Your task to perform on an android device: turn off data saver in the chrome app Image 0: 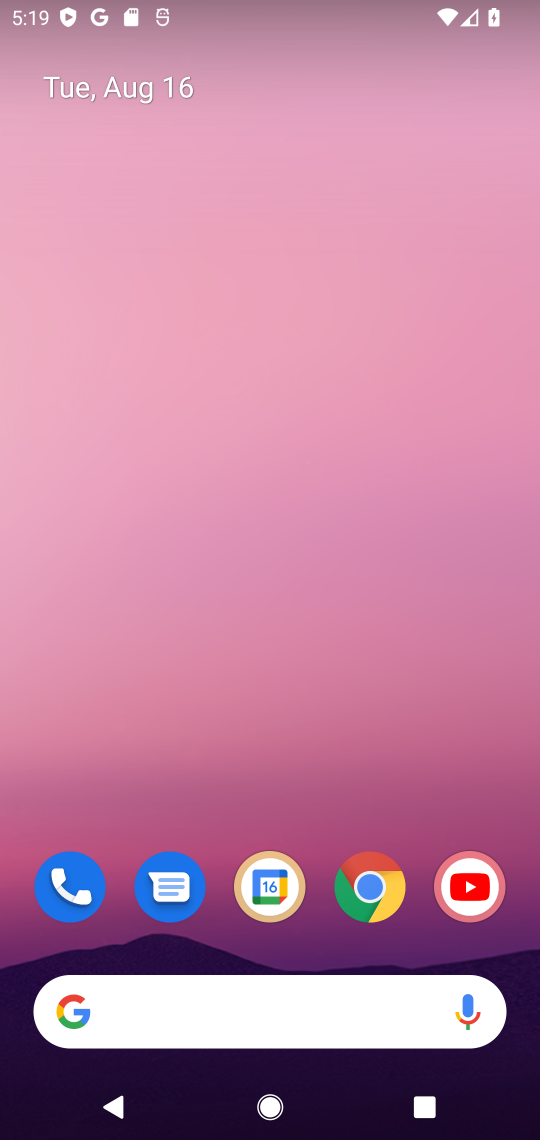
Step 0: drag from (341, 456) to (401, 13)
Your task to perform on an android device: turn off data saver in the chrome app Image 1: 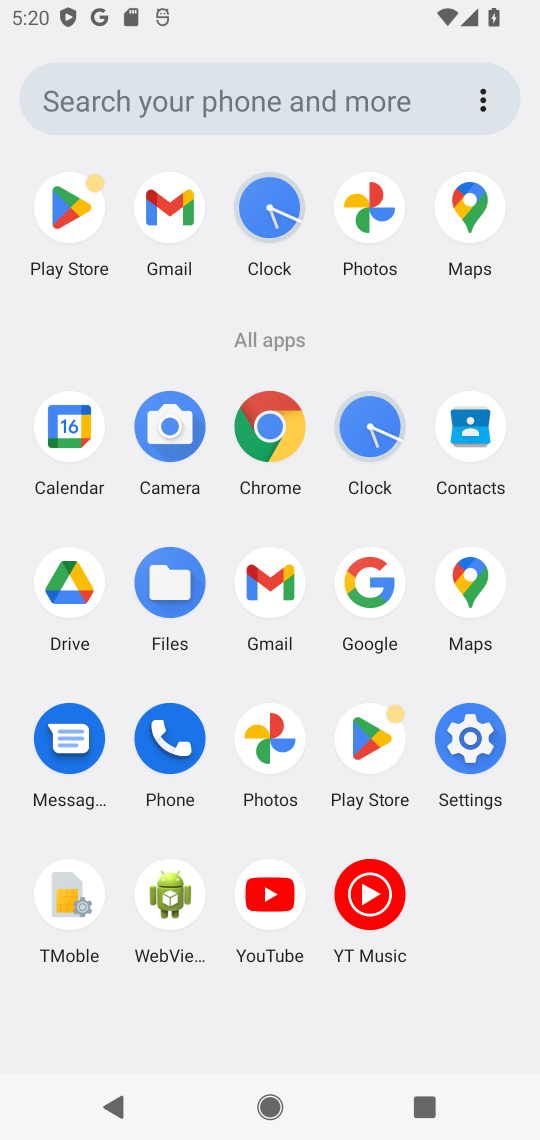
Step 1: click (273, 423)
Your task to perform on an android device: turn off data saver in the chrome app Image 2: 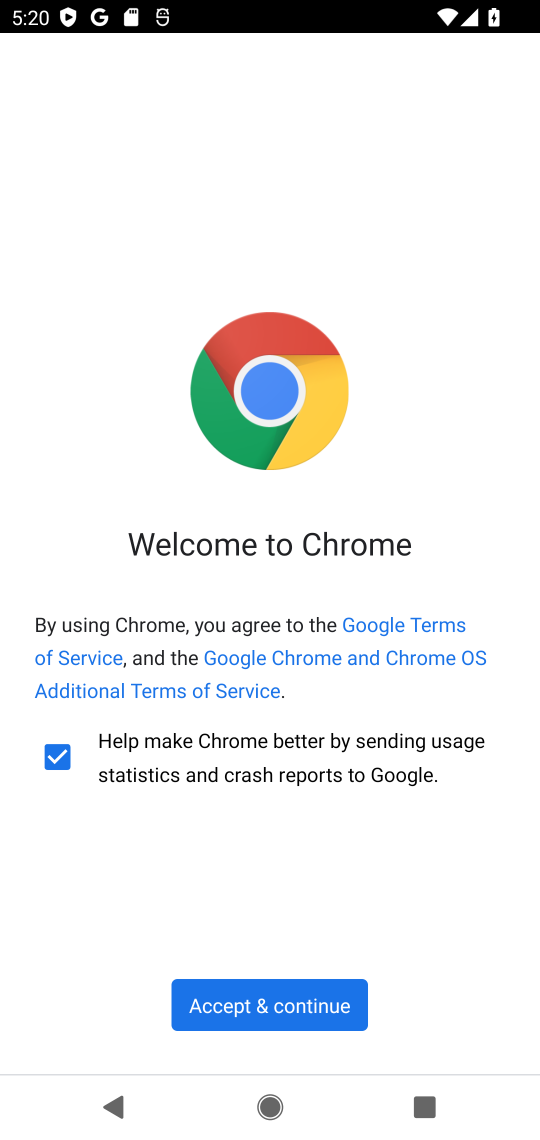
Step 2: click (280, 1002)
Your task to perform on an android device: turn off data saver in the chrome app Image 3: 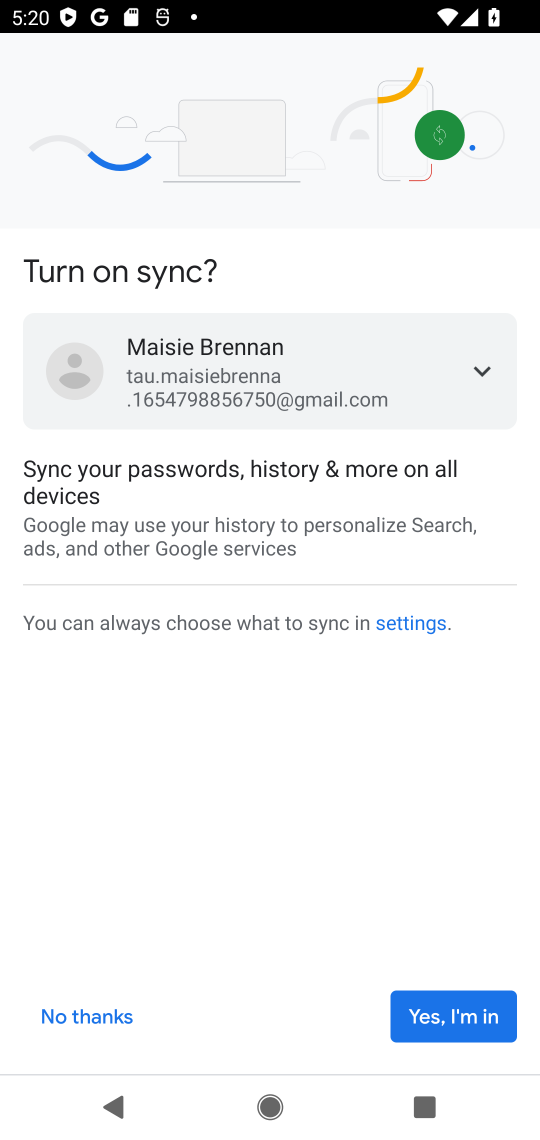
Step 3: click (466, 1017)
Your task to perform on an android device: turn off data saver in the chrome app Image 4: 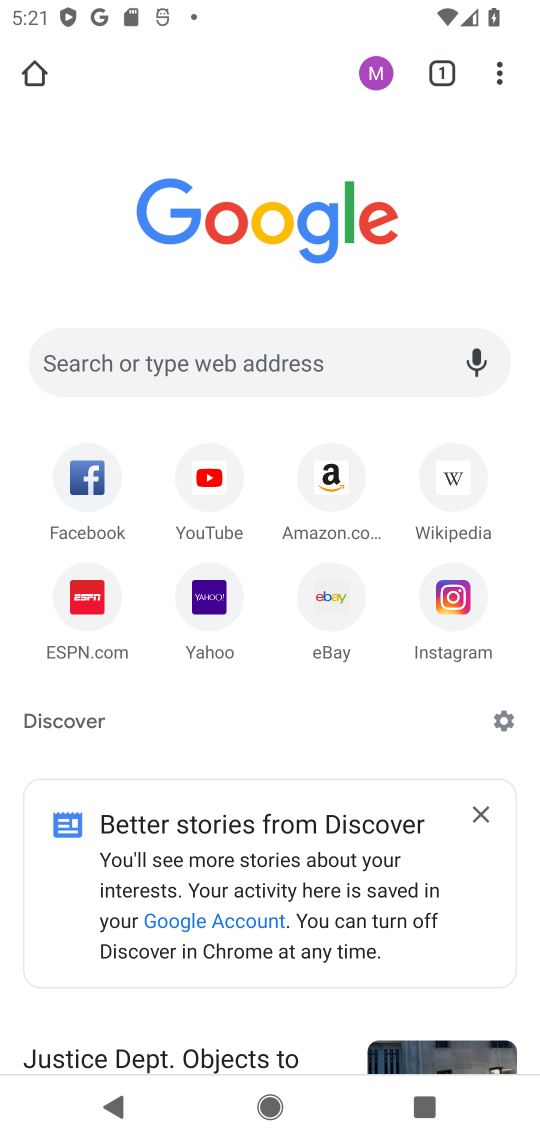
Step 4: drag from (503, 57) to (272, 683)
Your task to perform on an android device: turn off data saver in the chrome app Image 5: 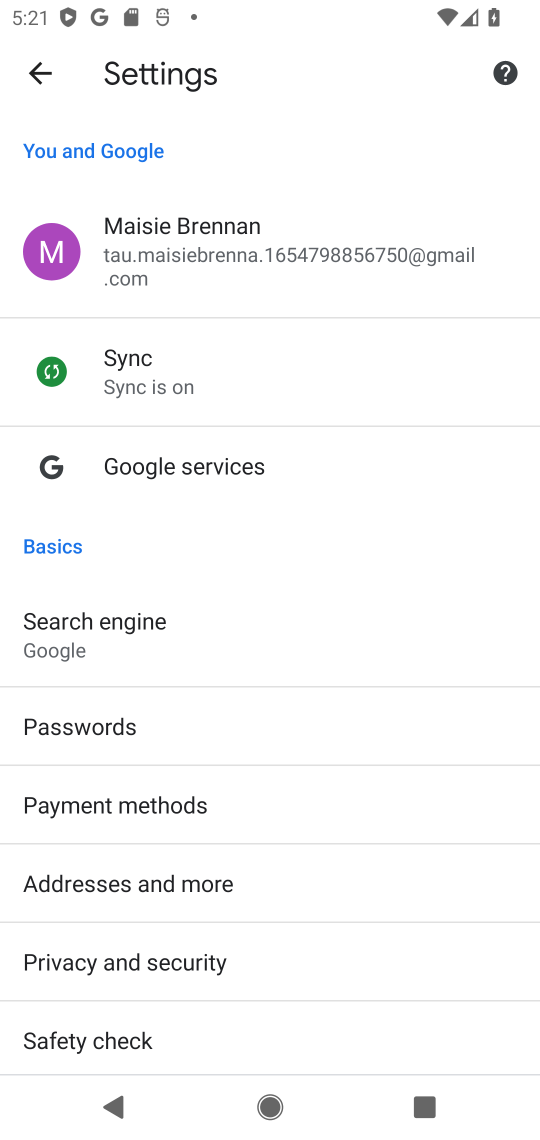
Step 5: drag from (320, 959) to (399, 102)
Your task to perform on an android device: turn off data saver in the chrome app Image 6: 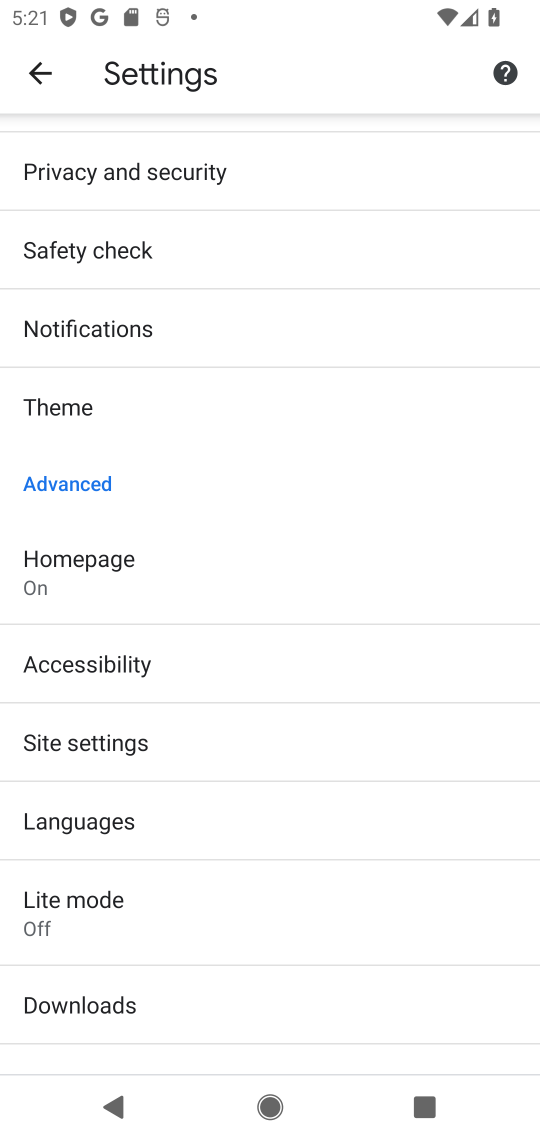
Step 6: click (97, 896)
Your task to perform on an android device: turn off data saver in the chrome app Image 7: 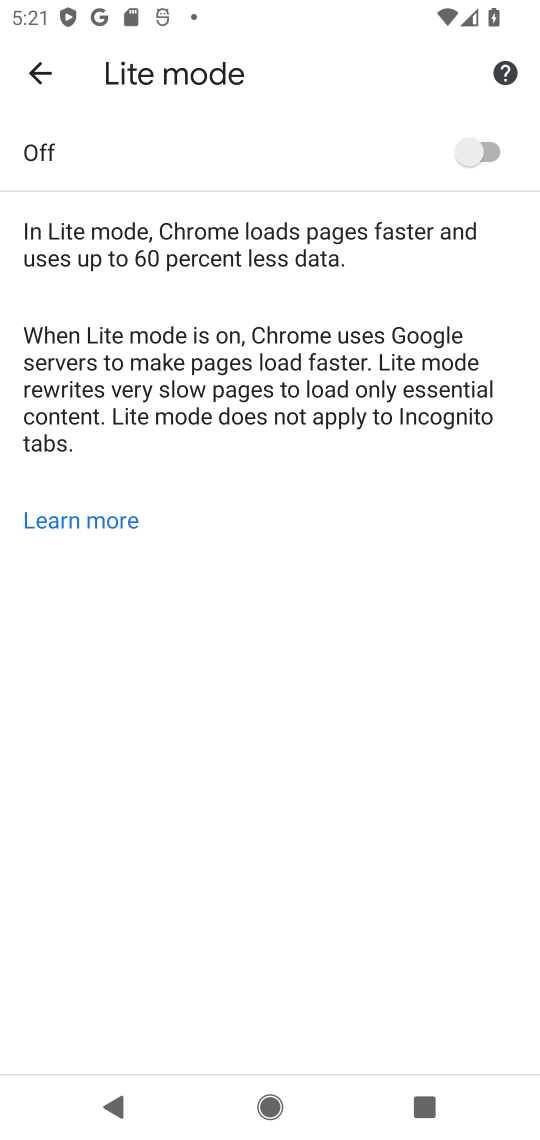
Step 7: task complete